Your task to perform on an android device: What's on my calendar today? Image 0: 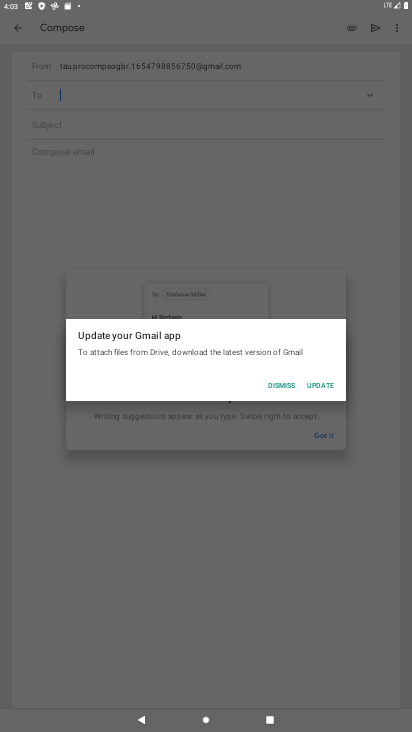
Step 0: press home button
Your task to perform on an android device: What's on my calendar today? Image 1: 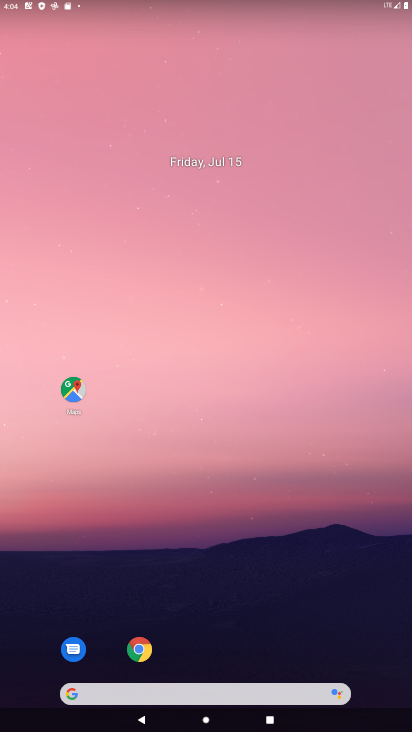
Step 1: drag from (291, 598) to (260, 133)
Your task to perform on an android device: What's on my calendar today? Image 2: 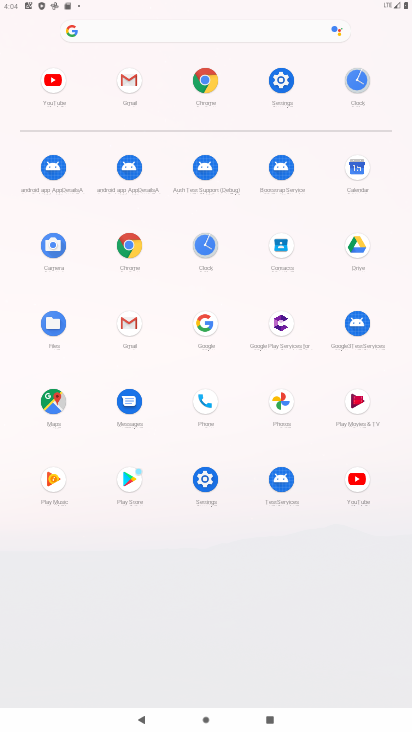
Step 2: click (353, 172)
Your task to perform on an android device: What's on my calendar today? Image 3: 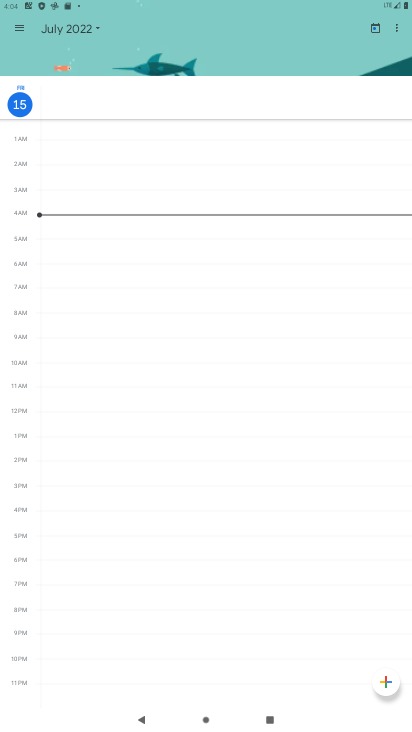
Step 3: task complete